Your task to perform on an android device: Open Wikipedia Image 0: 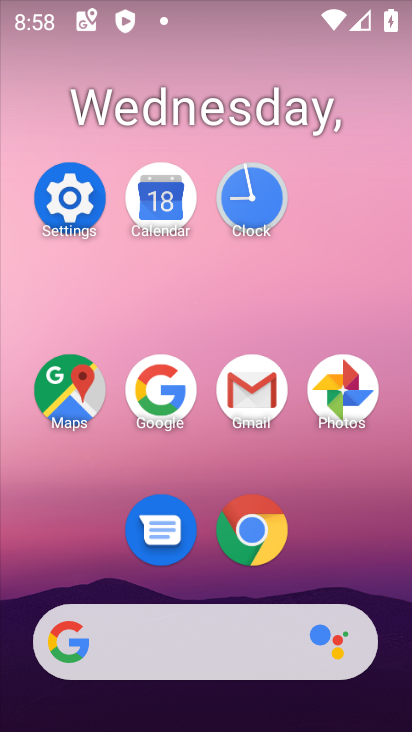
Step 0: click (243, 524)
Your task to perform on an android device: Open Wikipedia Image 1: 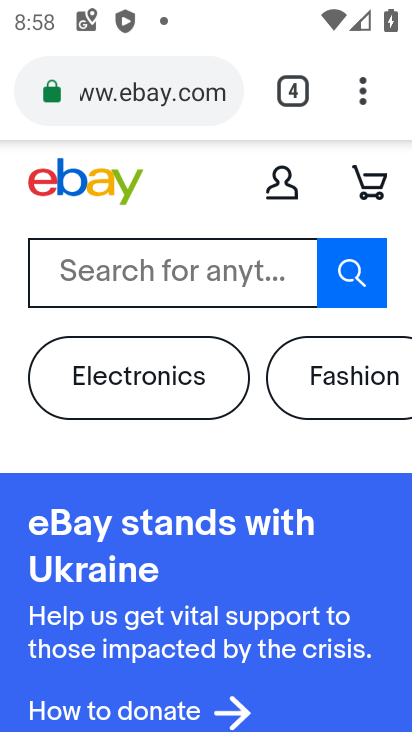
Step 1: click (306, 86)
Your task to perform on an android device: Open Wikipedia Image 2: 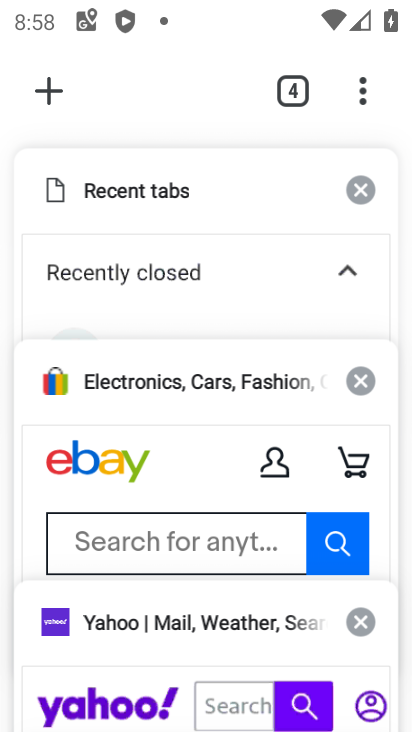
Step 2: drag from (157, 214) to (180, 511)
Your task to perform on an android device: Open Wikipedia Image 3: 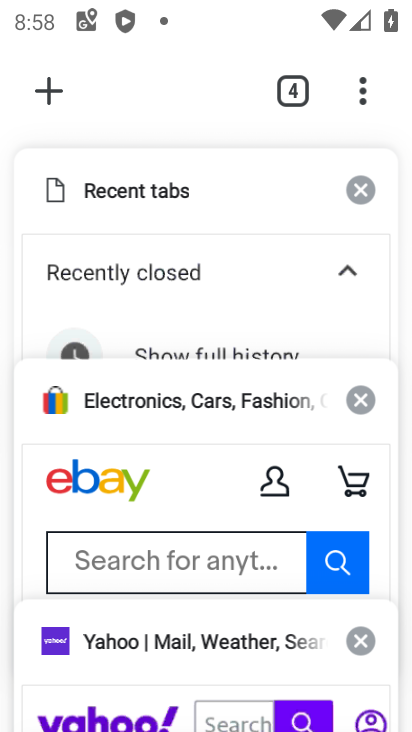
Step 3: click (63, 101)
Your task to perform on an android device: Open Wikipedia Image 4: 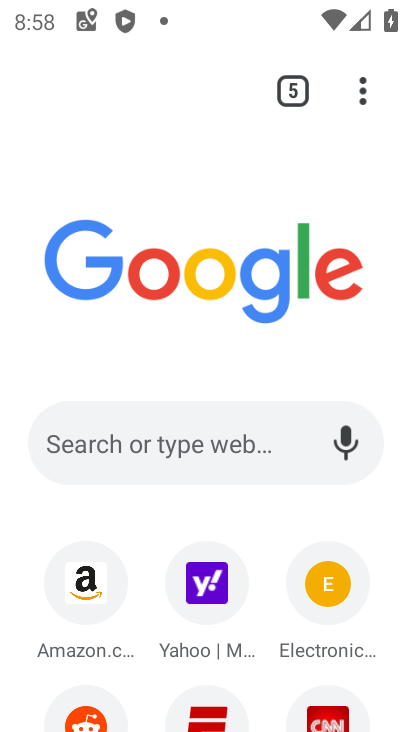
Step 4: click (174, 435)
Your task to perform on an android device: Open Wikipedia Image 5: 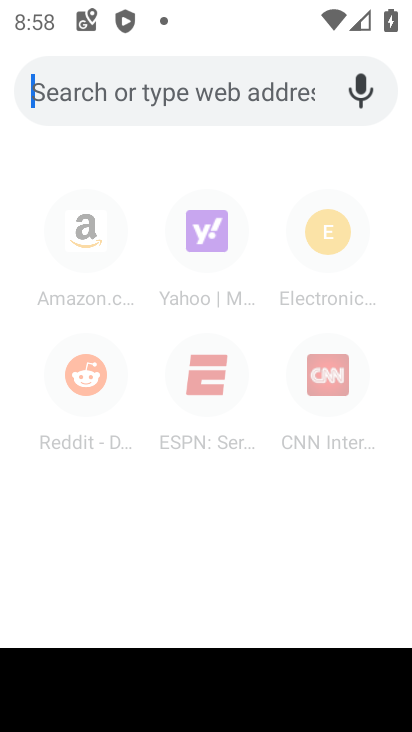
Step 5: type "wikipedia"
Your task to perform on an android device: Open Wikipedia Image 6: 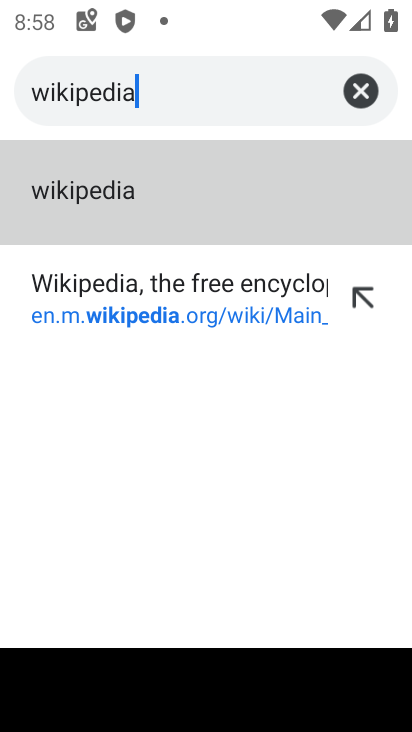
Step 6: click (101, 317)
Your task to perform on an android device: Open Wikipedia Image 7: 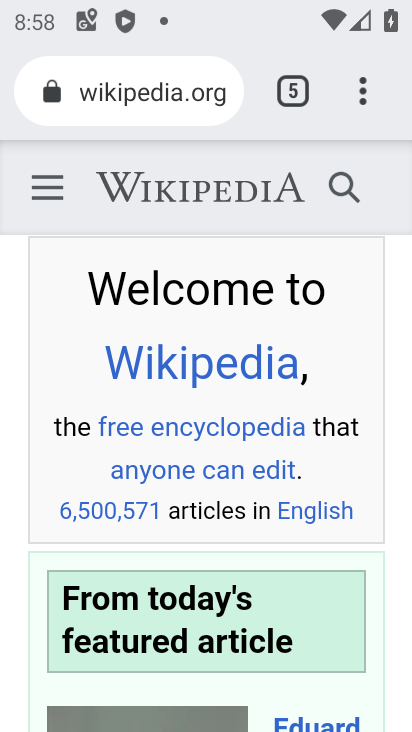
Step 7: task complete